Your task to perform on an android device: show emergency info Image 0: 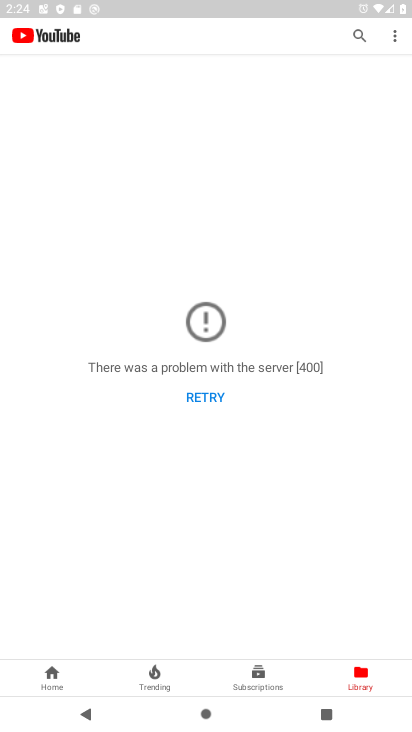
Step 0: press home button
Your task to perform on an android device: show emergency info Image 1: 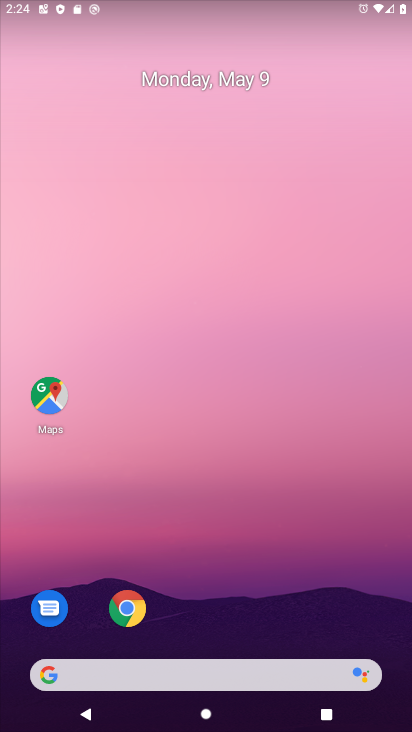
Step 1: drag from (246, 631) to (290, 137)
Your task to perform on an android device: show emergency info Image 2: 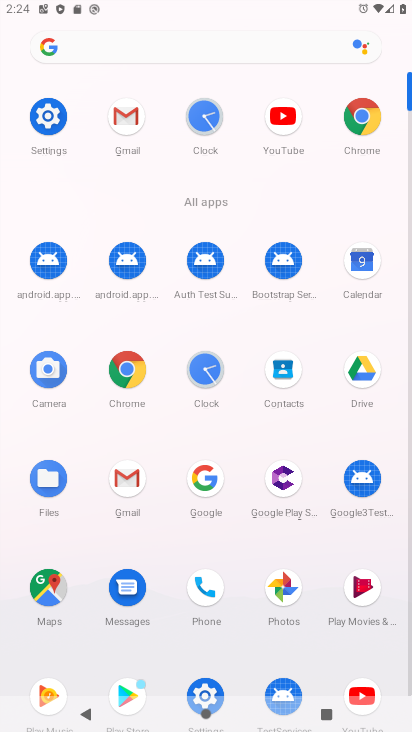
Step 2: click (38, 113)
Your task to perform on an android device: show emergency info Image 3: 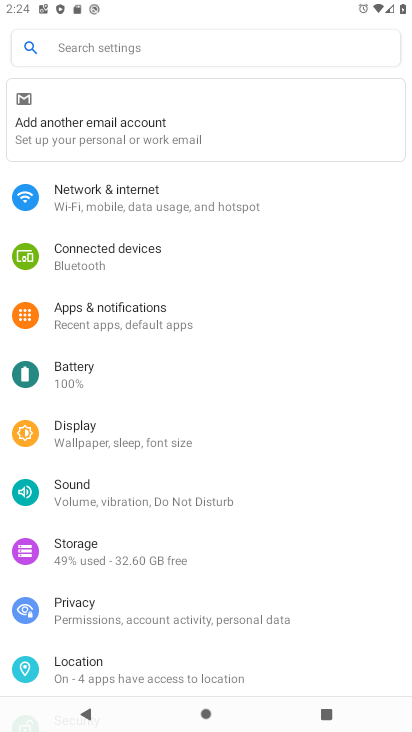
Step 3: drag from (87, 641) to (208, 168)
Your task to perform on an android device: show emergency info Image 4: 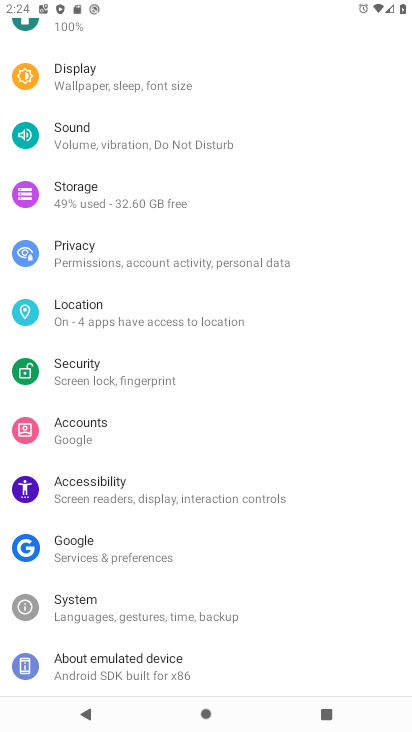
Step 4: click (110, 663)
Your task to perform on an android device: show emergency info Image 5: 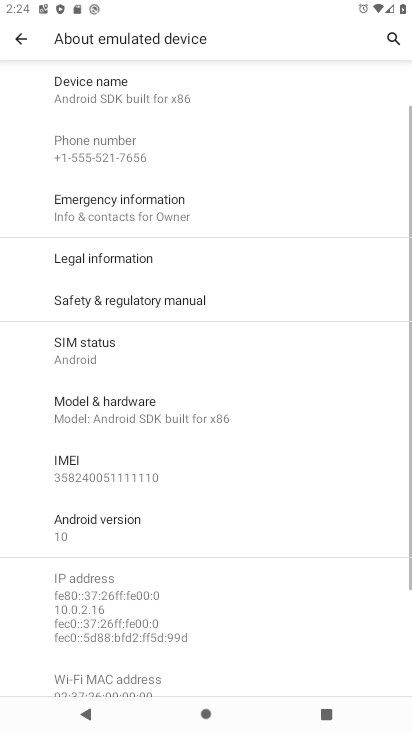
Step 5: click (192, 187)
Your task to perform on an android device: show emergency info Image 6: 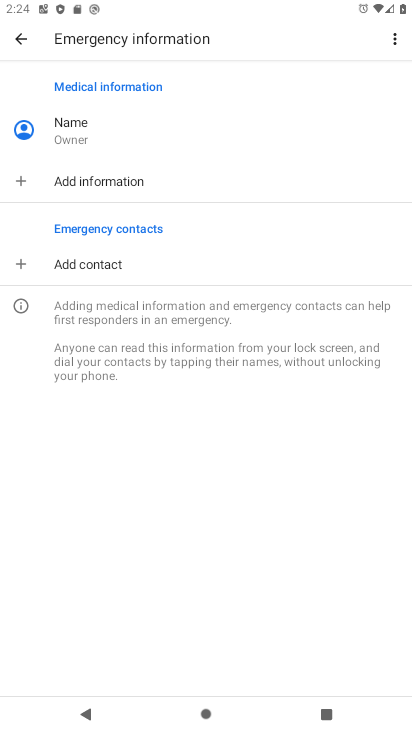
Step 6: task complete